Your task to perform on an android device: When is my next meeting? Image 0: 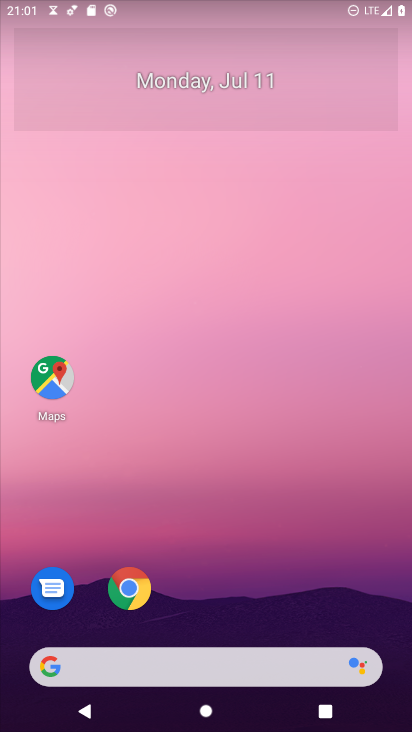
Step 0: press home button
Your task to perform on an android device: When is my next meeting? Image 1: 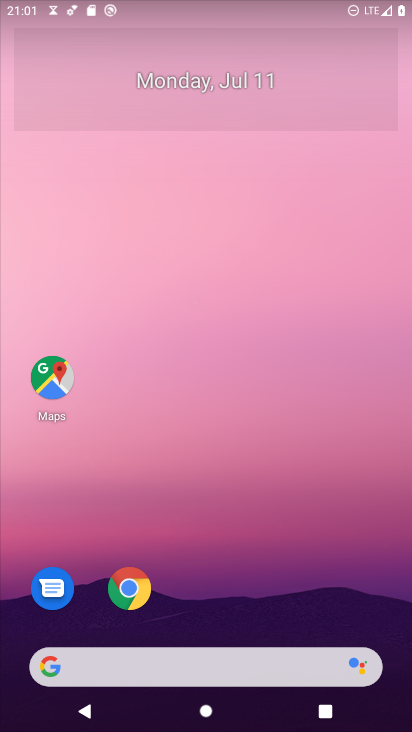
Step 1: press home button
Your task to perform on an android device: When is my next meeting? Image 2: 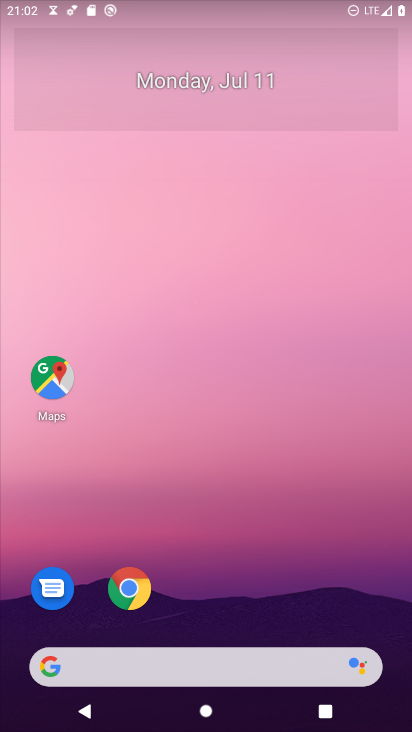
Step 2: drag from (229, 625) to (236, 90)
Your task to perform on an android device: When is my next meeting? Image 3: 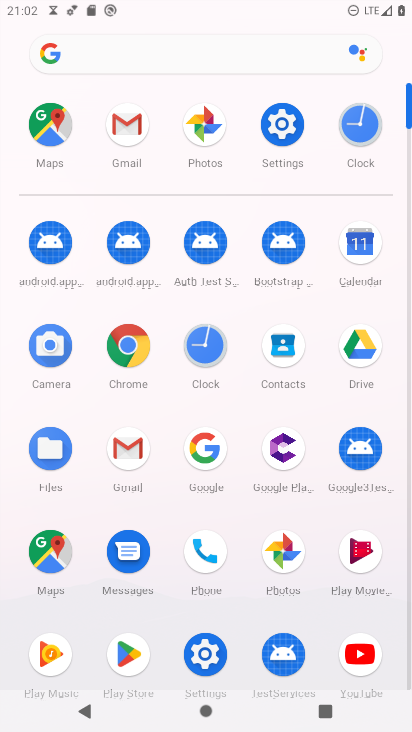
Step 3: click (356, 255)
Your task to perform on an android device: When is my next meeting? Image 4: 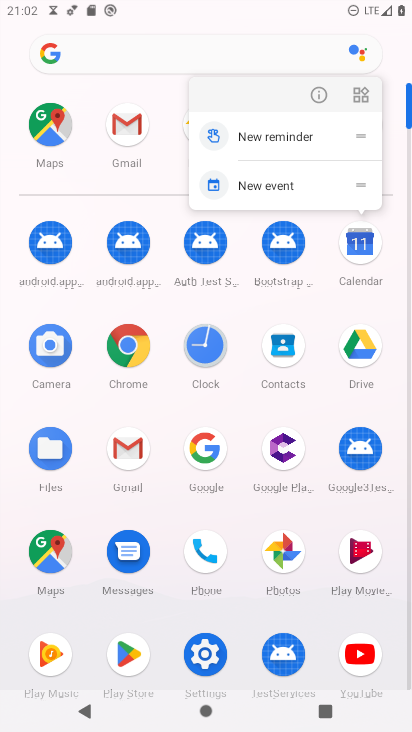
Step 4: click (357, 267)
Your task to perform on an android device: When is my next meeting? Image 5: 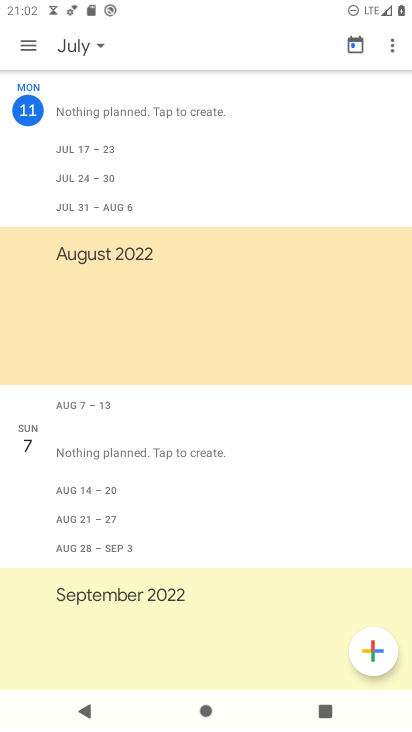
Step 5: click (23, 49)
Your task to perform on an android device: When is my next meeting? Image 6: 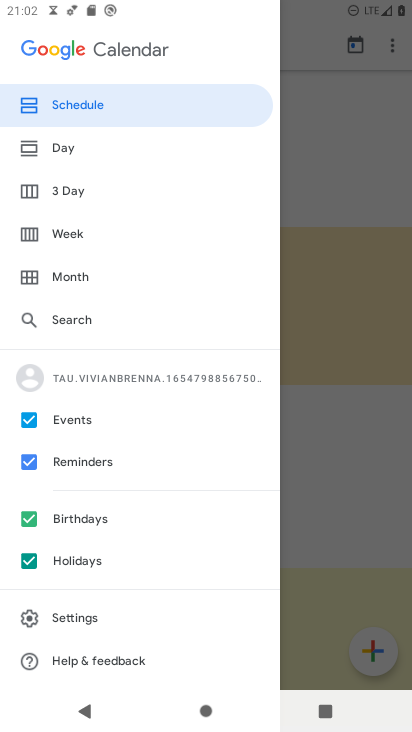
Step 6: click (73, 110)
Your task to perform on an android device: When is my next meeting? Image 7: 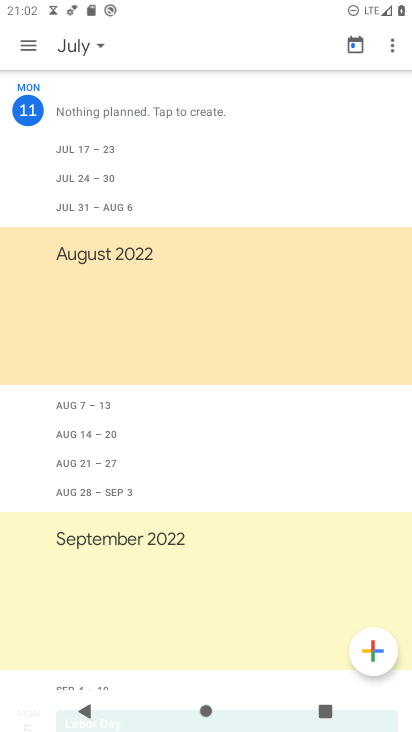
Step 7: task complete